Your task to perform on an android device: Search for a new phone on Amazon. Image 0: 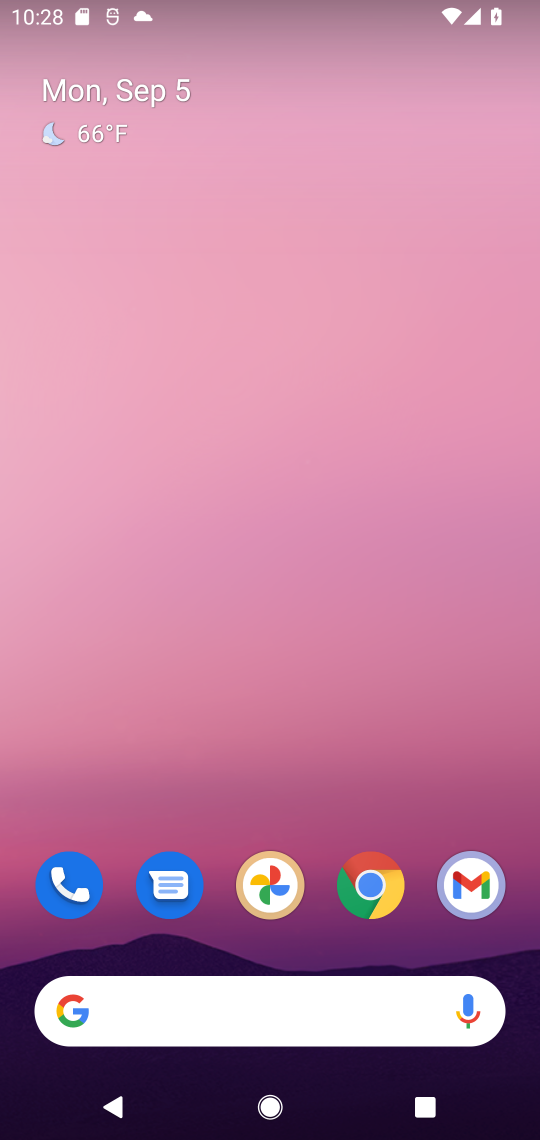
Step 0: drag from (302, 901) to (316, 49)
Your task to perform on an android device: Search for a new phone on Amazon. Image 1: 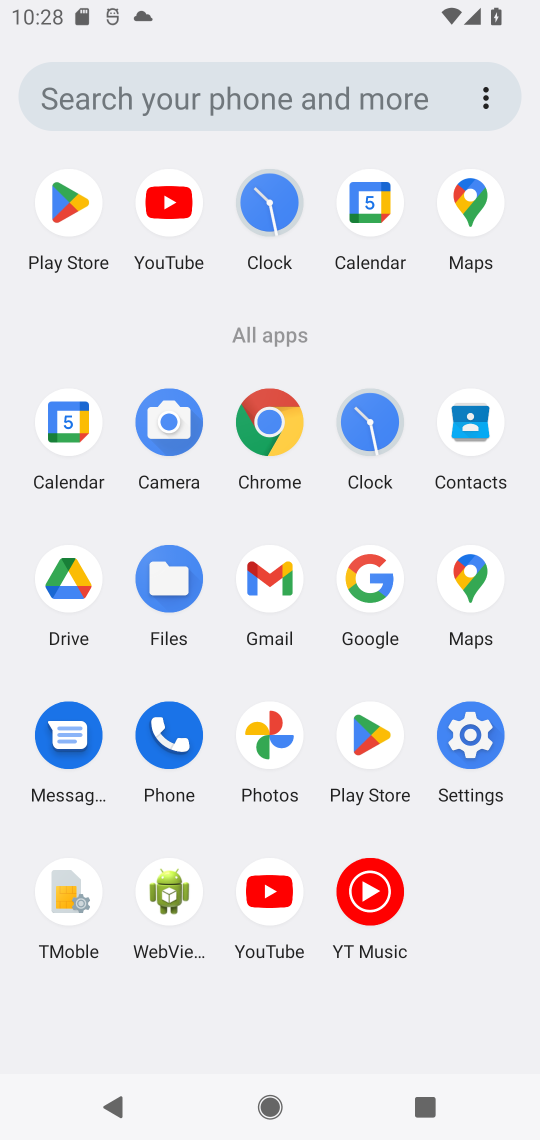
Step 1: click (368, 587)
Your task to perform on an android device: Search for a new phone on Amazon. Image 2: 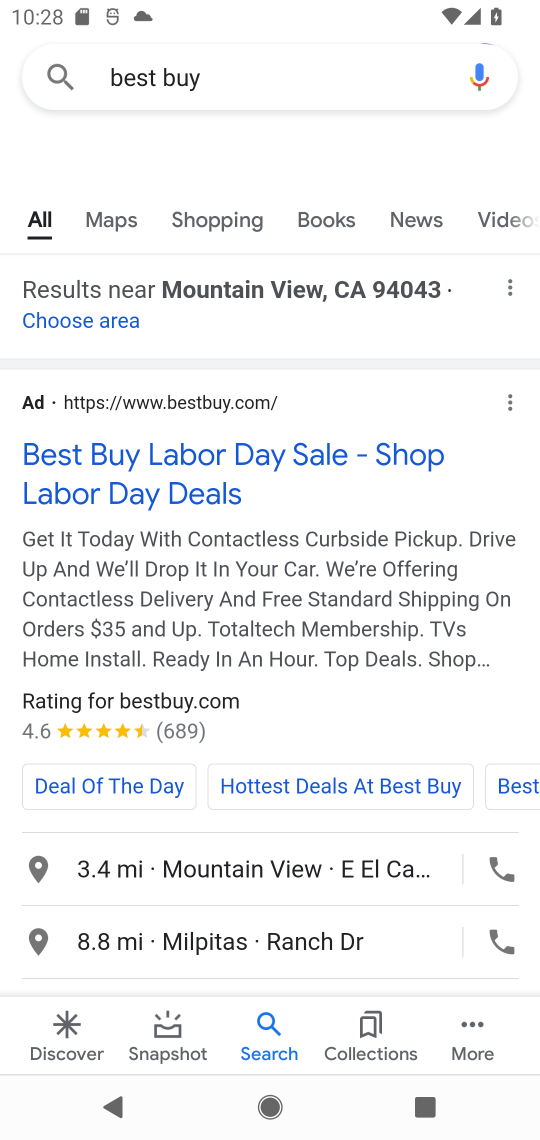
Step 2: click (252, 81)
Your task to perform on an android device: Search for a new phone on Amazon. Image 3: 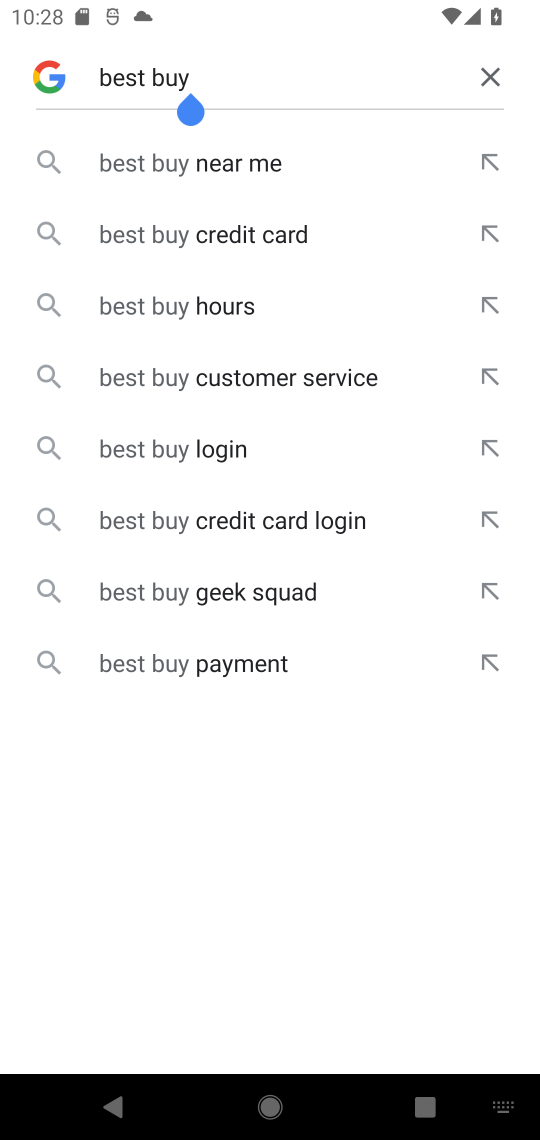
Step 3: click (485, 72)
Your task to perform on an android device: Search for a new phone on Amazon. Image 4: 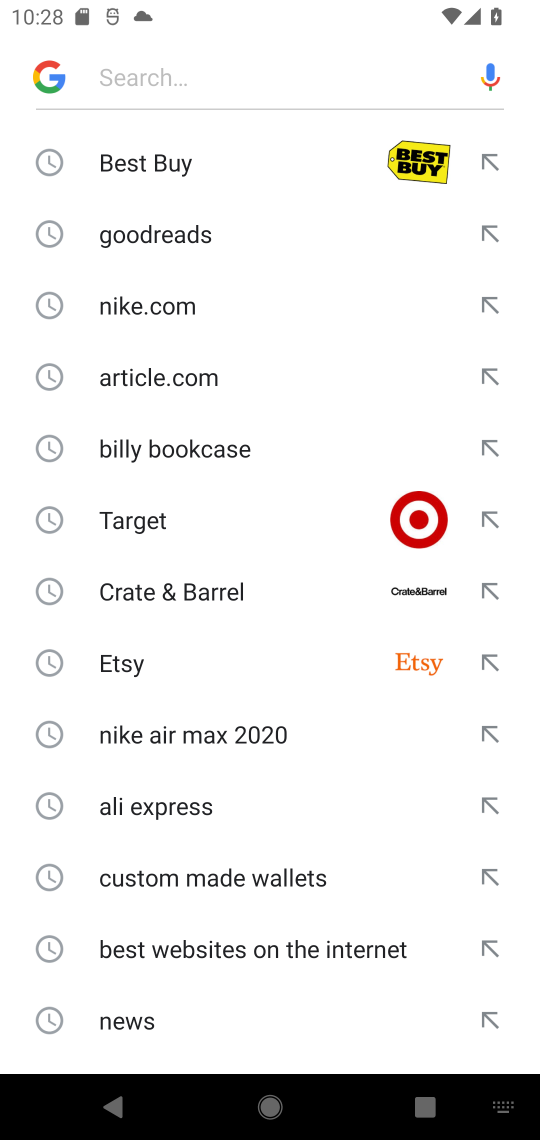
Step 4: type "Amazon"
Your task to perform on an android device: Search for a new phone on Amazon. Image 5: 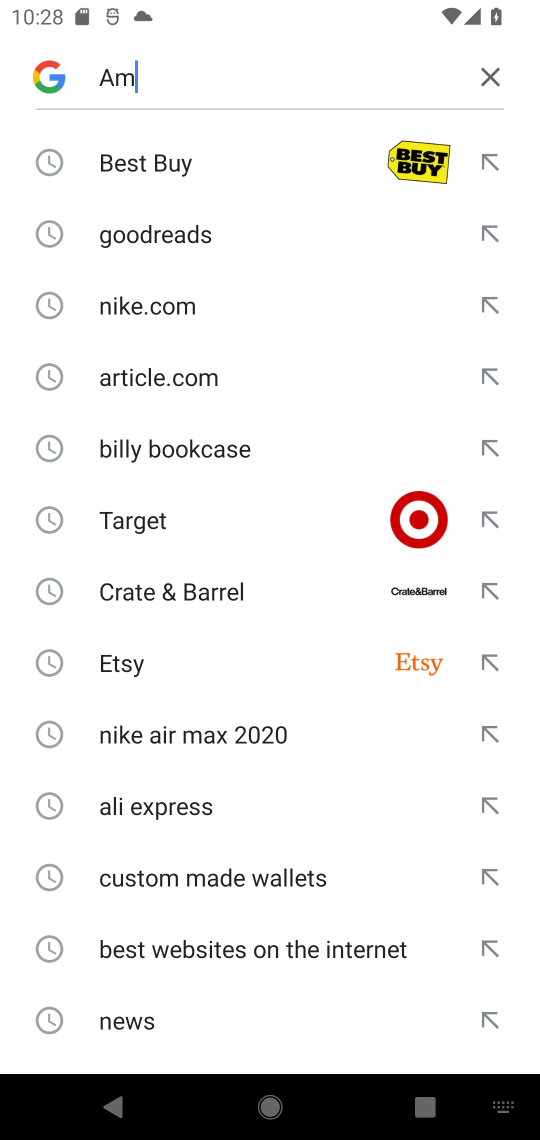
Step 5: type ""
Your task to perform on an android device: Search for a new phone on Amazon. Image 6: 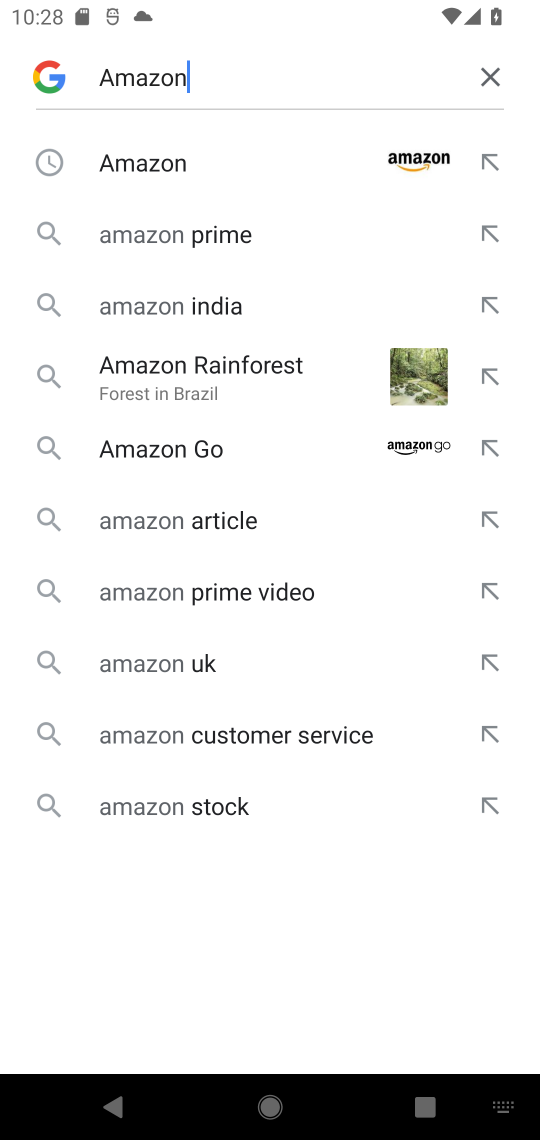
Step 6: click (109, 158)
Your task to perform on an android device: Search for a new phone on Amazon. Image 7: 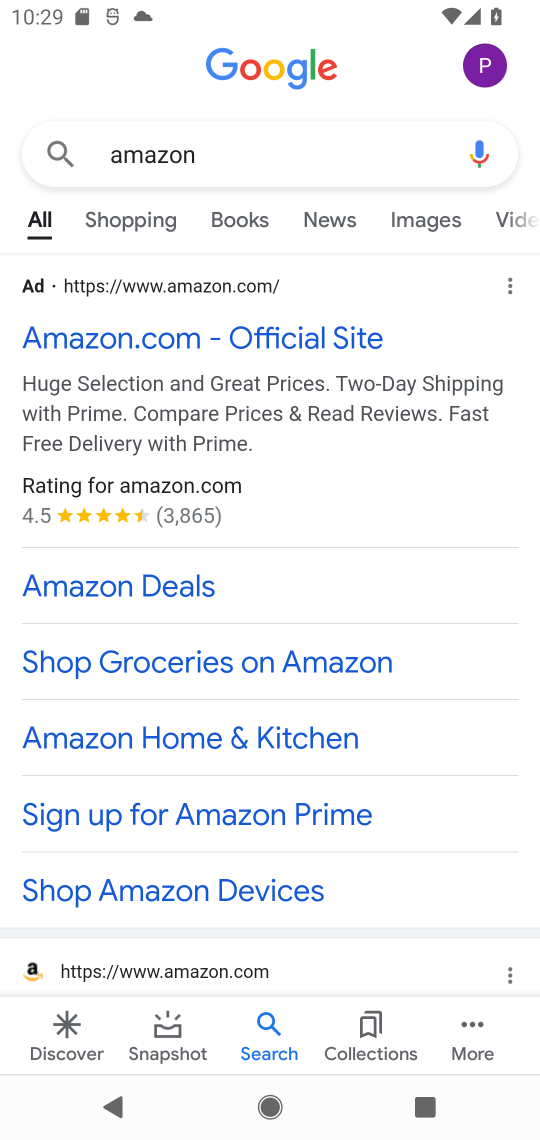
Step 7: click (182, 336)
Your task to perform on an android device: Search for a new phone on Amazon. Image 8: 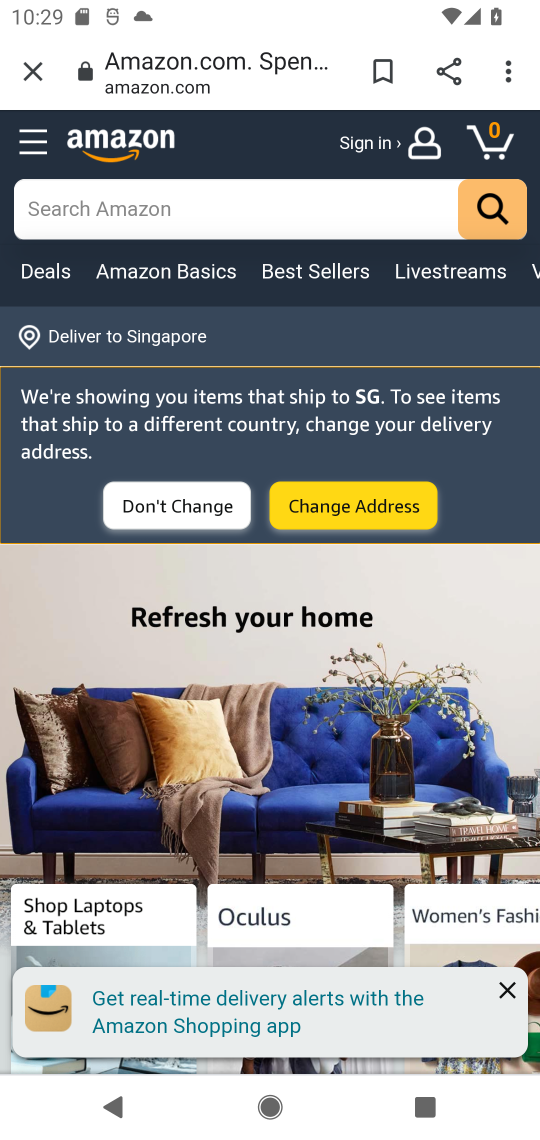
Step 8: click (273, 219)
Your task to perform on an android device: Search for a new phone on Amazon. Image 9: 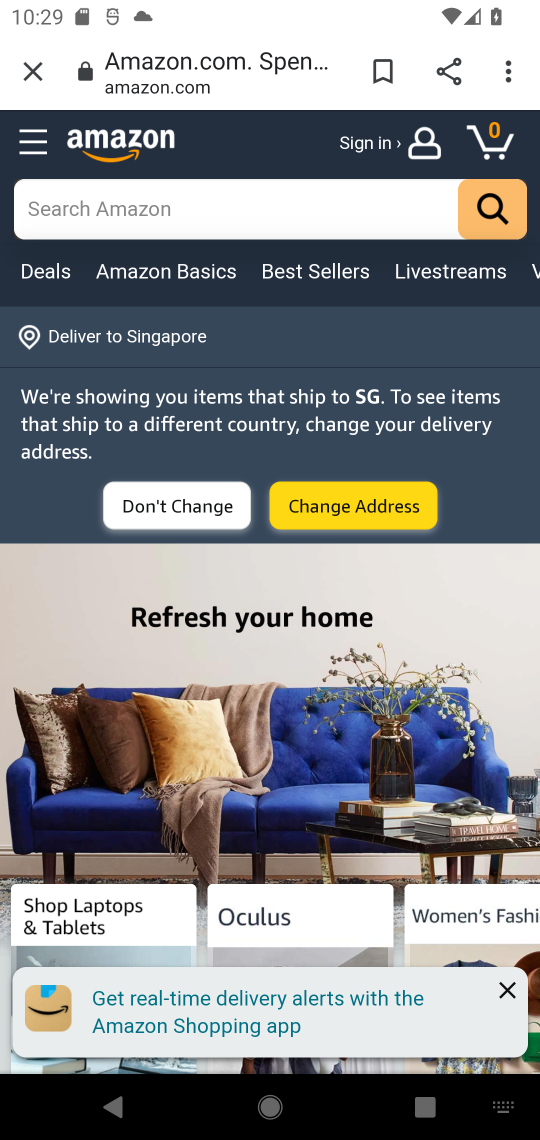
Step 9: click (309, 205)
Your task to perform on an android device: Search for a new phone on Amazon. Image 10: 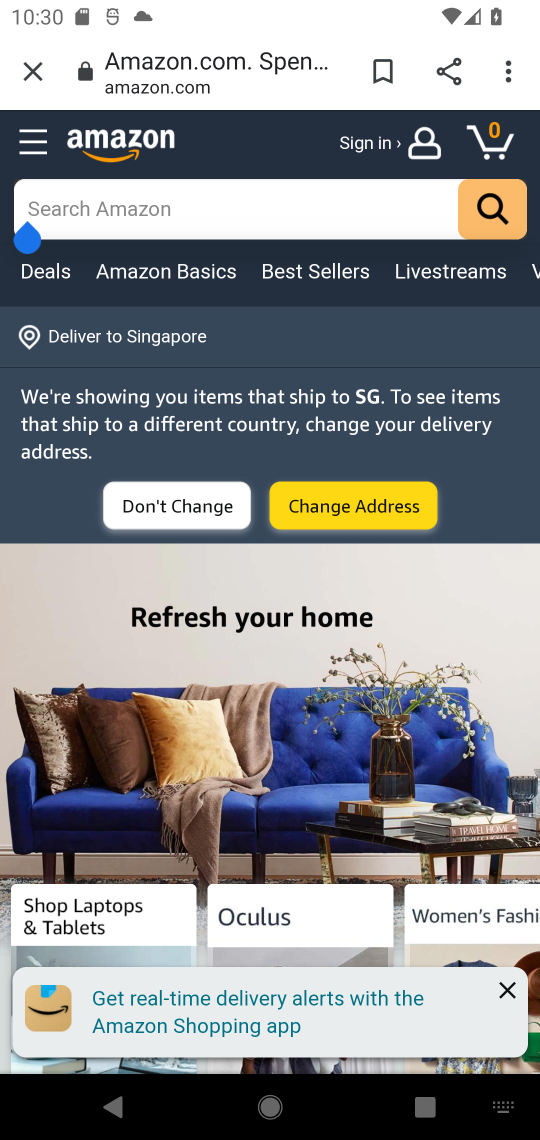
Step 10: type "New Phone"
Your task to perform on an android device: Search for a new phone on Amazon. Image 11: 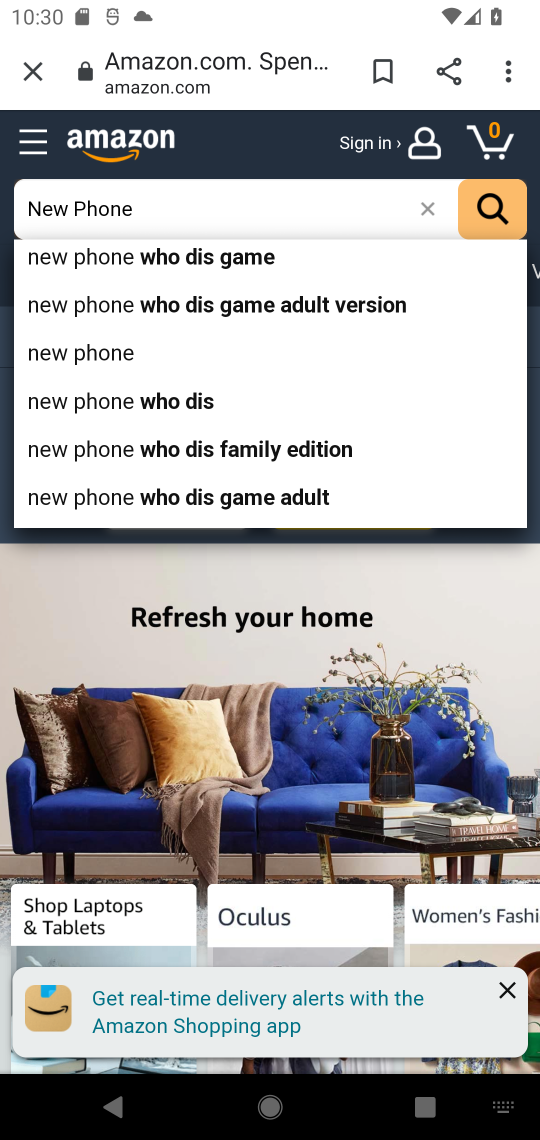
Step 11: click (110, 357)
Your task to perform on an android device: Search for a new phone on Amazon. Image 12: 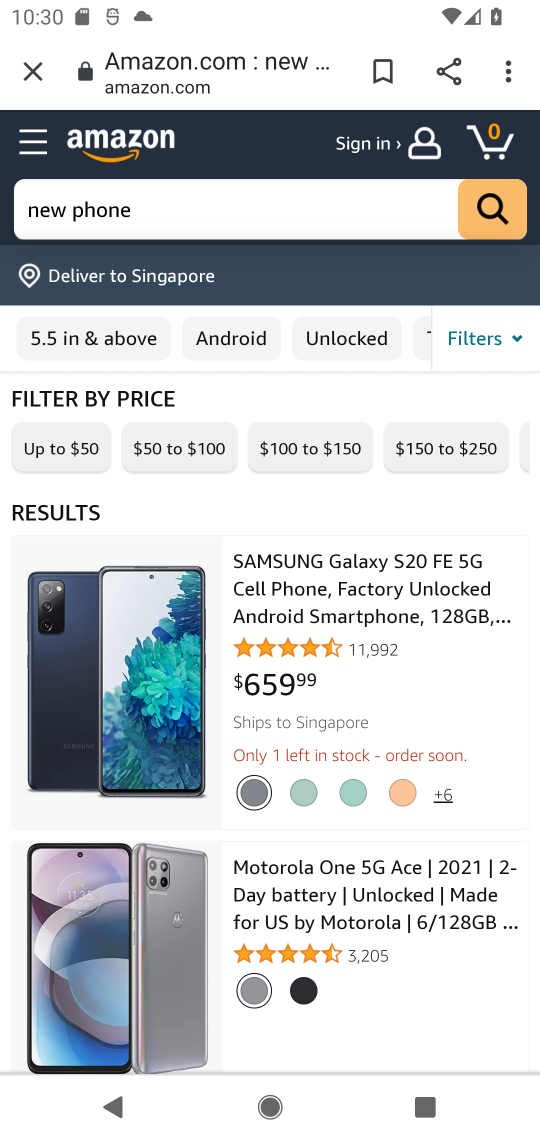
Step 12: task complete